Your task to perform on an android device: turn off location Image 0: 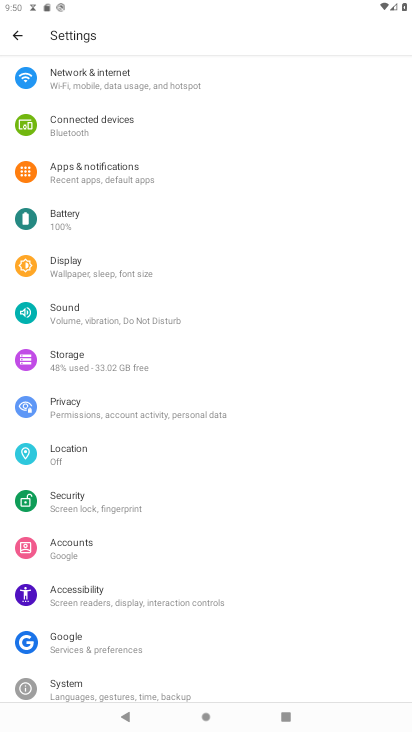
Step 0: click (113, 447)
Your task to perform on an android device: turn off location Image 1: 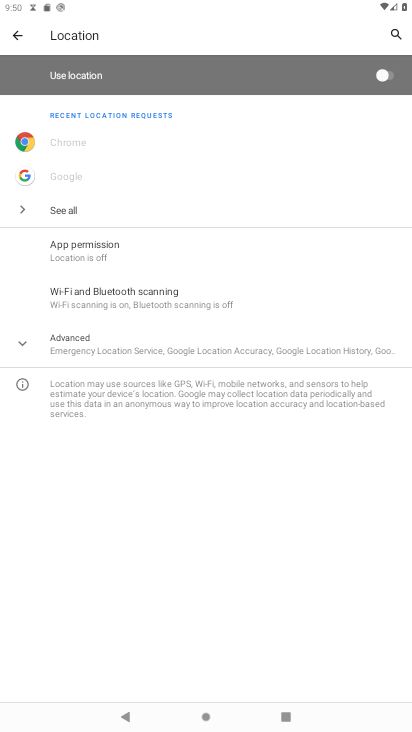
Step 1: task complete